Your task to perform on an android device: Open calendar and show me the first week of next month Image 0: 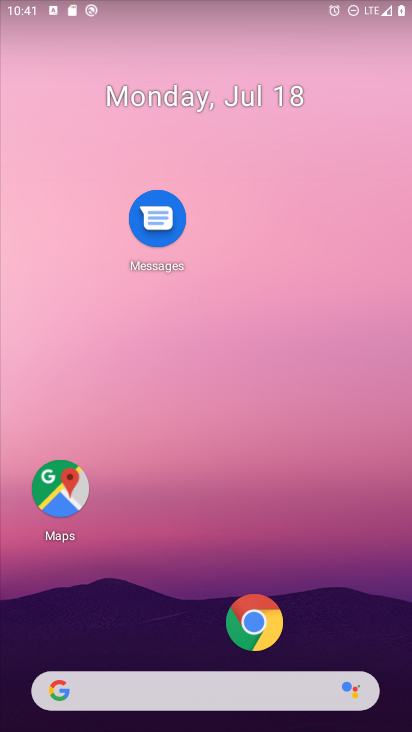
Step 0: drag from (253, 686) to (321, 187)
Your task to perform on an android device: Open calendar and show me the first week of next month Image 1: 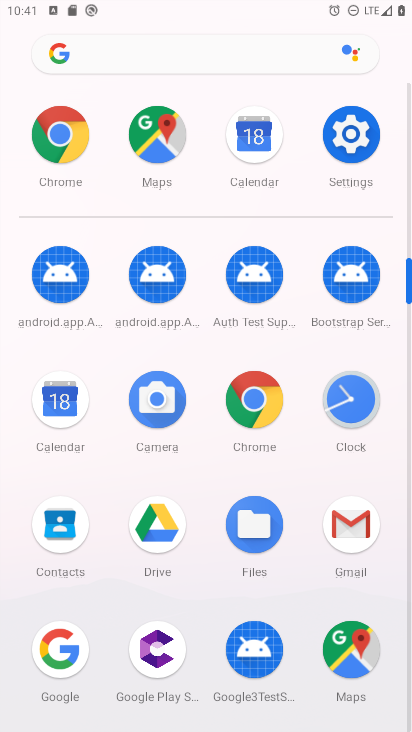
Step 1: drag from (237, 536) to (262, 200)
Your task to perform on an android device: Open calendar and show me the first week of next month Image 2: 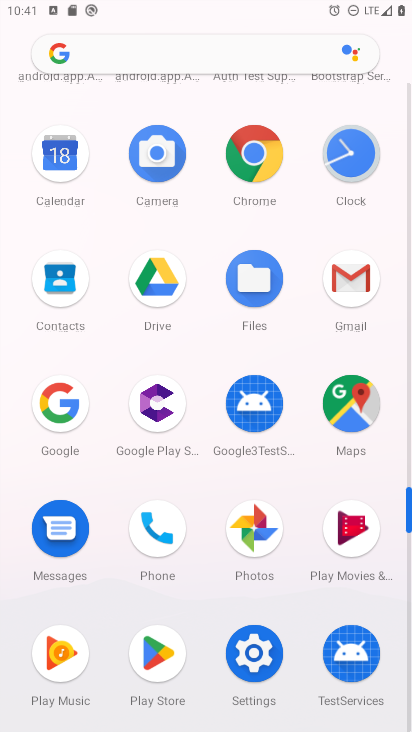
Step 2: click (74, 178)
Your task to perform on an android device: Open calendar and show me the first week of next month Image 3: 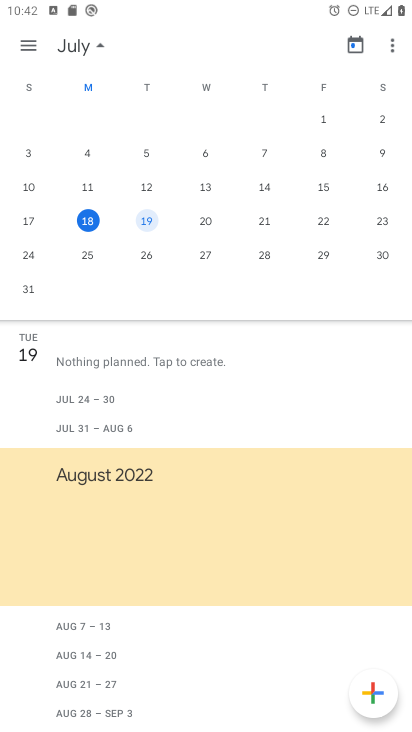
Step 3: task complete